Your task to perform on an android device: open the mobile data screen to see how much data has been used Image 0: 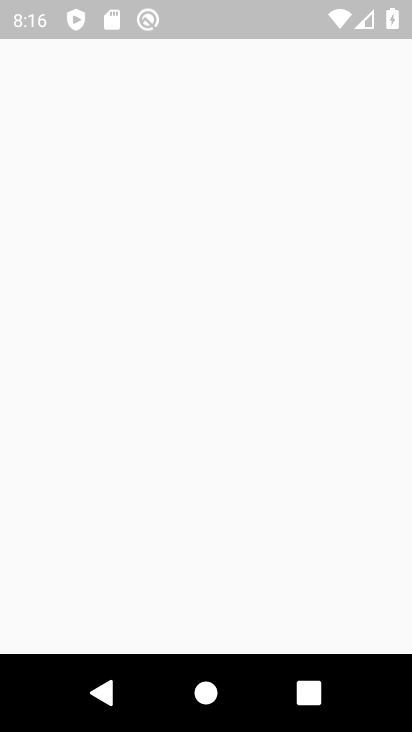
Step 0: press home button
Your task to perform on an android device: open the mobile data screen to see how much data has been used Image 1: 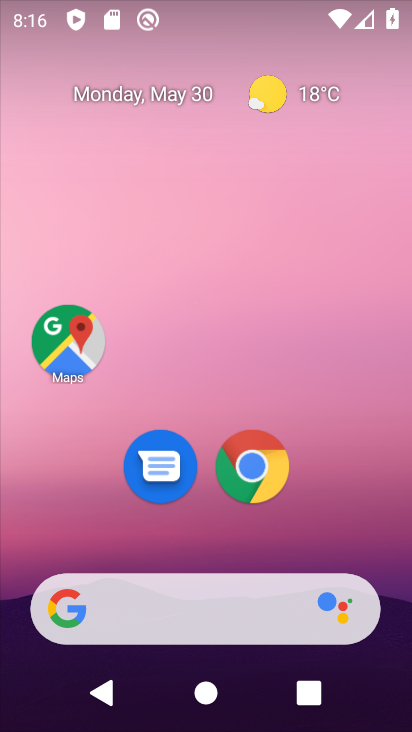
Step 1: drag from (285, 4) to (186, 636)
Your task to perform on an android device: open the mobile data screen to see how much data has been used Image 2: 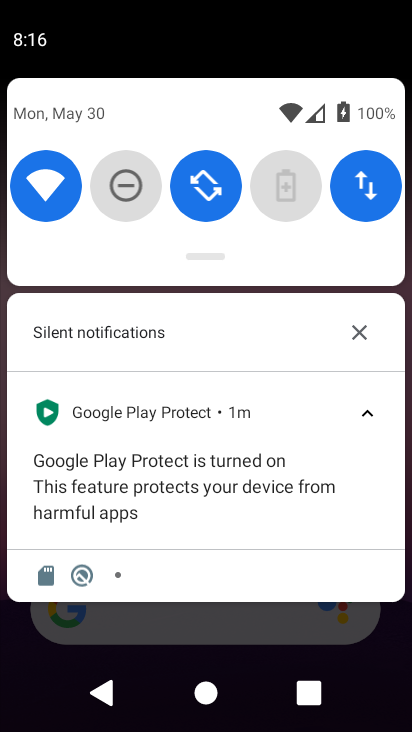
Step 2: click (364, 183)
Your task to perform on an android device: open the mobile data screen to see how much data has been used Image 3: 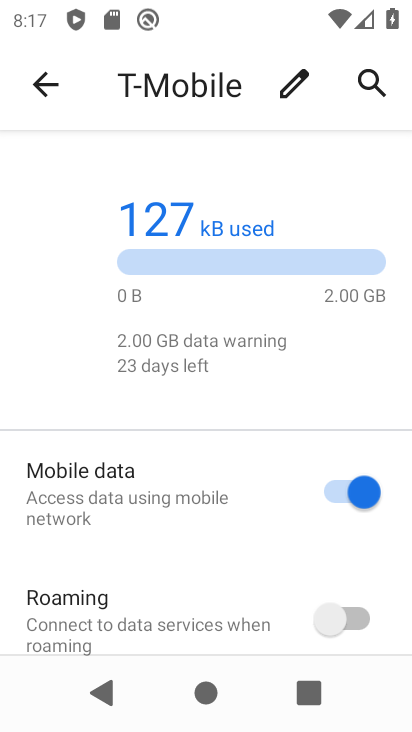
Step 3: task complete